Your task to perform on an android device: turn on location history Image 0: 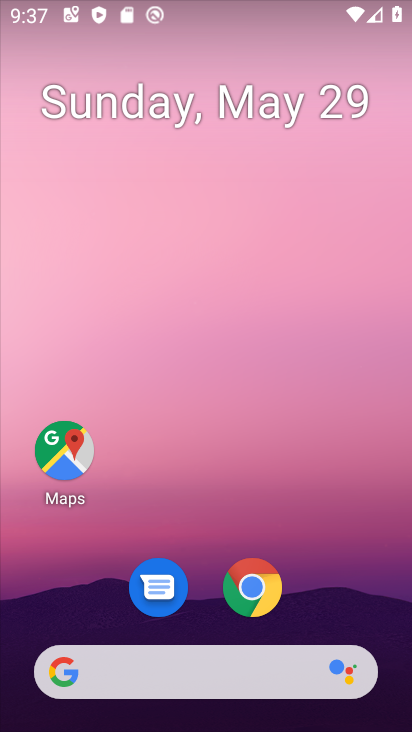
Step 0: drag from (243, 533) to (261, 30)
Your task to perform on an android device: turn on location history Image 1: 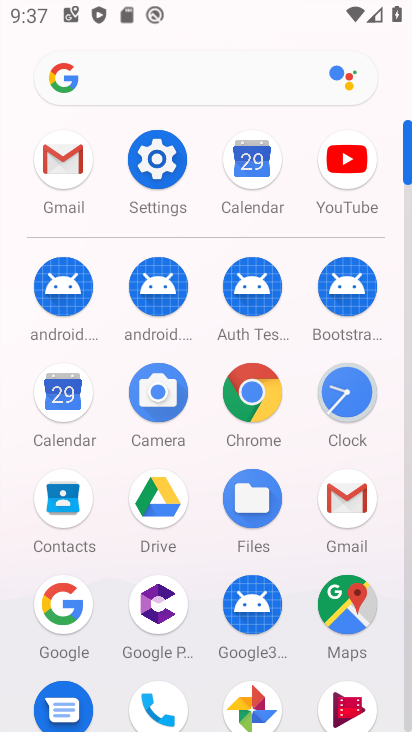
Step 1: click (149, 149)
Your task to perform on an android device: turn on location history Image 2: 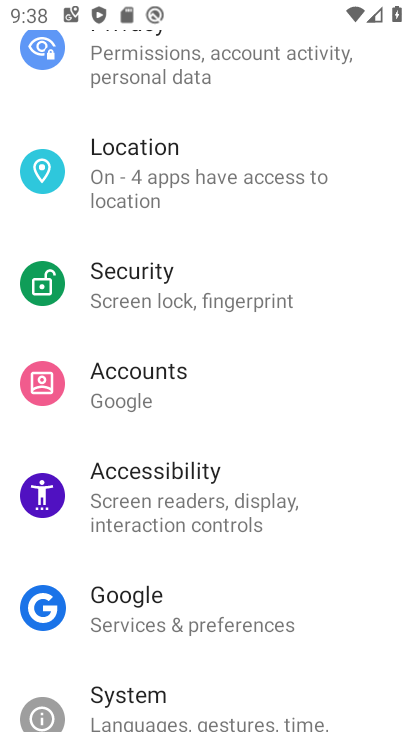
Step 2: click (142, 171)
Your task to perform on an android device: turn on location history Image 3: 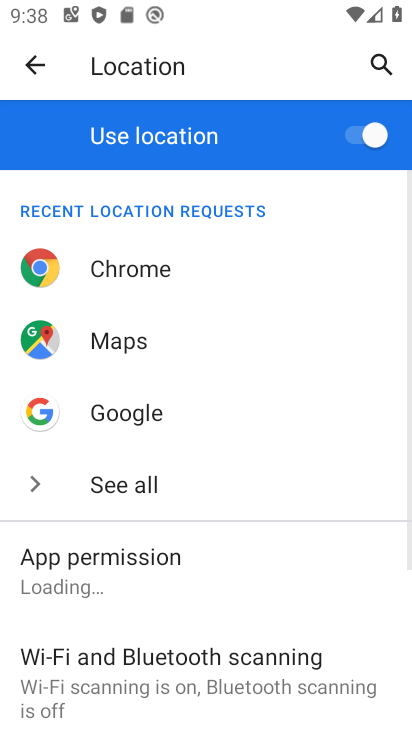
Step 3: drag from (192, 650) to (317, 137)
Your task to perform on an android device: turn on location history Image 4: 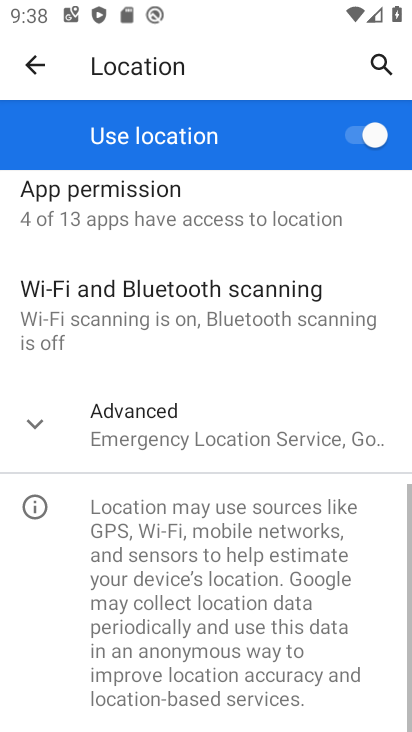
Step 4: click (174, 419)
Your task to perform on an android device: turn on location history Image 5: 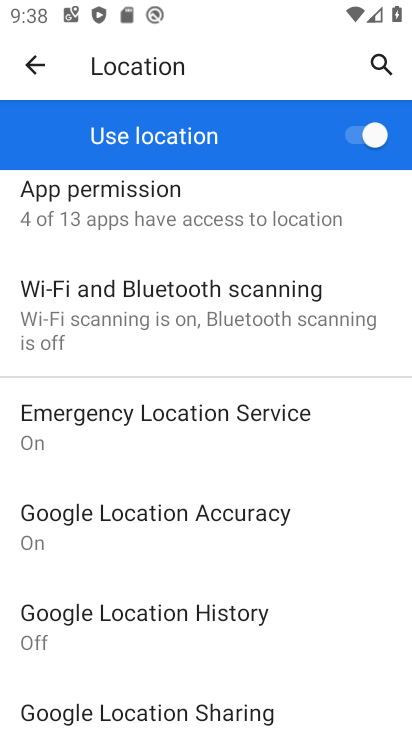
Step 5: click (170, 615)
Your task to perform on an android device: turn on location history Image 6: 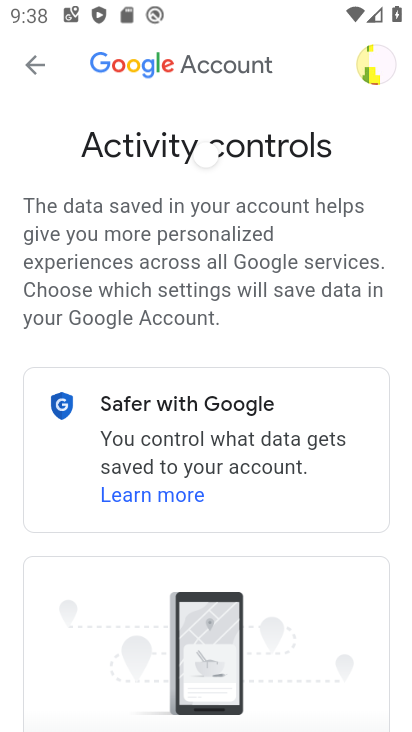
Step 6: drag from (215, 642) to (306, 91)
Your task to perform on an android device: turn on location history Image 7: 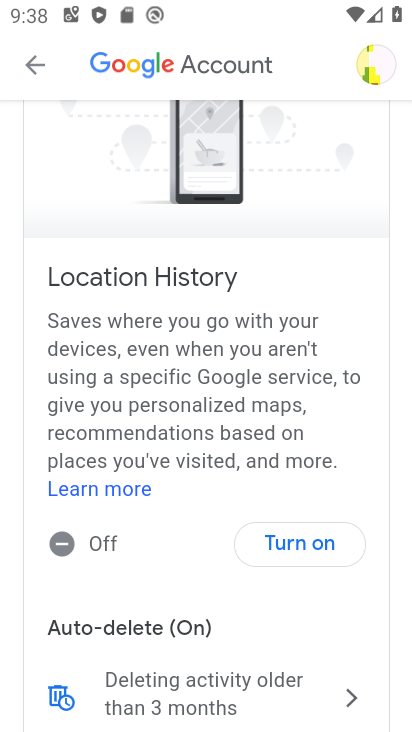
Step 7: click (313, 539)
Your task to perform on an android device: turn on location history Image 8: 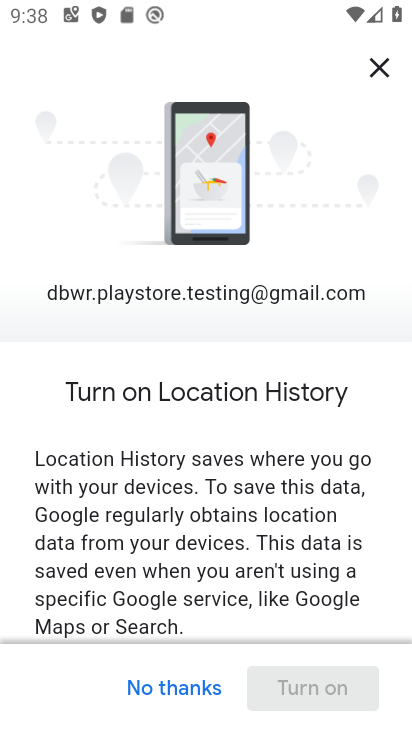
Step 8: drag from (224, 518) to (287, 74)
Your task to perform on an android device: turn on location history Image 9: 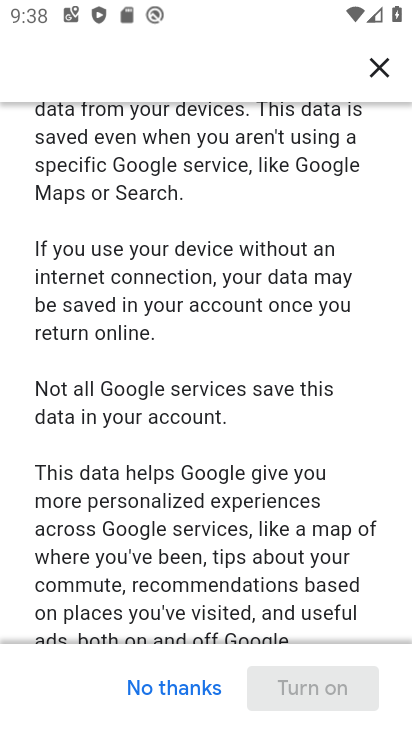
Step 9: drag from (249, 595) to (344, 7)
Your task to perform on an android device: turn on location history Image 10: 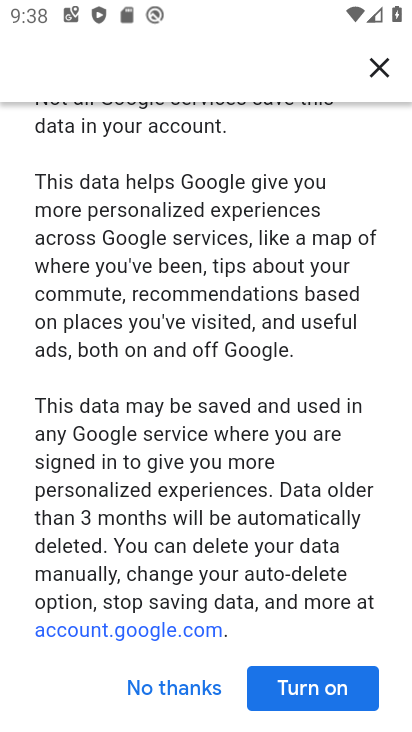
Step 10: click (305, 691)
Your task to perform on an android device: turn on location history Image 11: 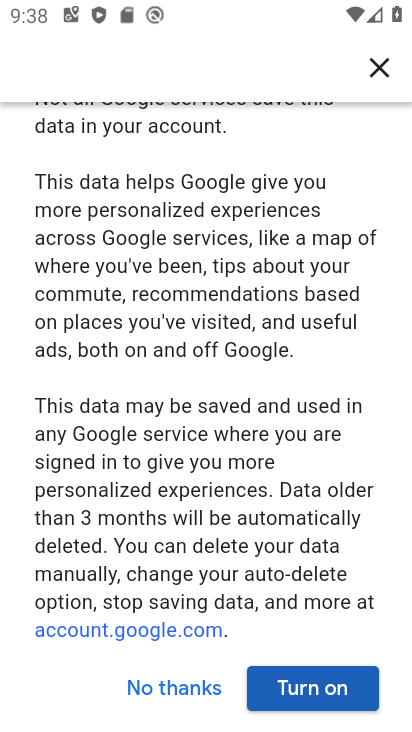
Step 11: click (316, 692)
Your task to perform on an android device: turn on location history Image 12: 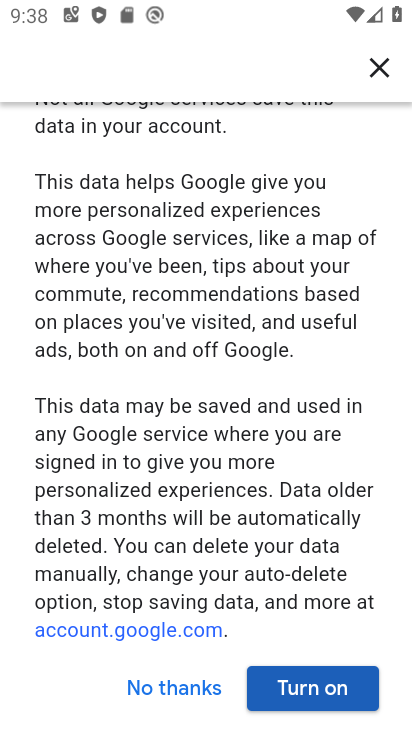
Step 12: click (311, 678)
Your task to perform on an android device: turn on location history Image 13: 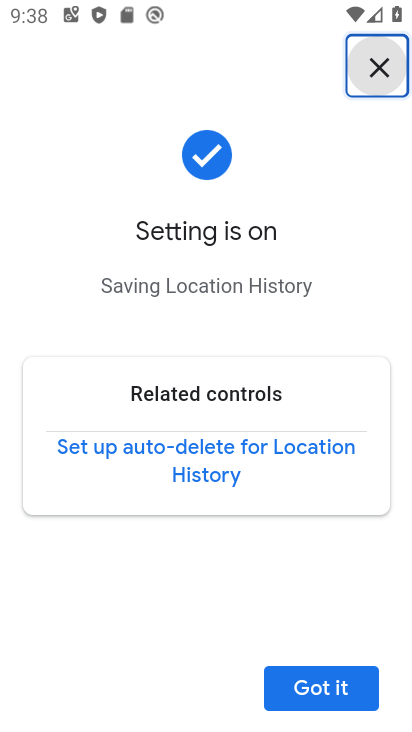
Step 13: task complete